Your task to perform on an android device: open app "Google Play Games" (install if not already installed) Image 0: 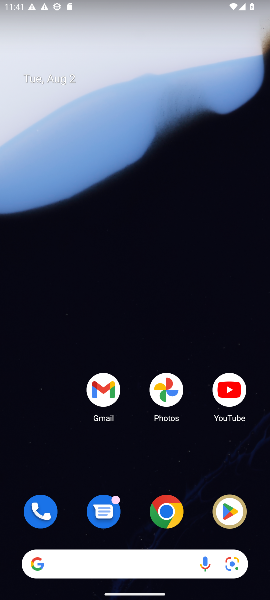
Step 0: click (229, 499)
Your task to perform on an android device: open app "Google Play Games" (install if not already installed) Image 1: 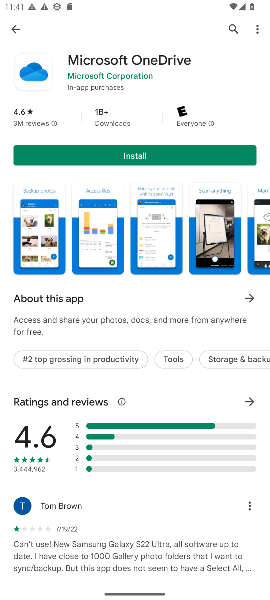
Step 1: click (225, 31)
Your task to perform on an android device: open app "Google Play Games" (install if not already installed) Image 2: 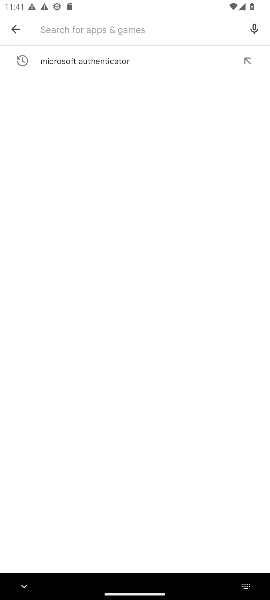
Step 2: type "google play games"
Your task to perform on an android device: open app "Google Play Games" (install if not already installed) Image 3: 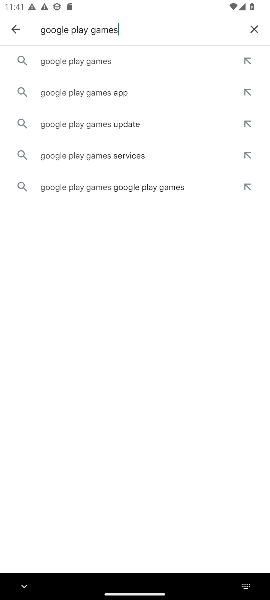
Step 3: click (61, 59)
Your task to perform on an android device: open app "Google Play Games" (install if not already installed) Image 4: 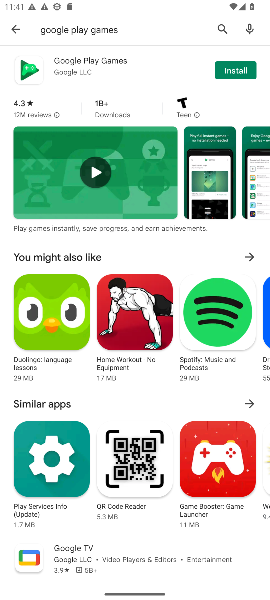
Step 4: click (77, 57)
Your task to perform on an android device: open app "Google Play Games" (install if not already installed) Image 5: 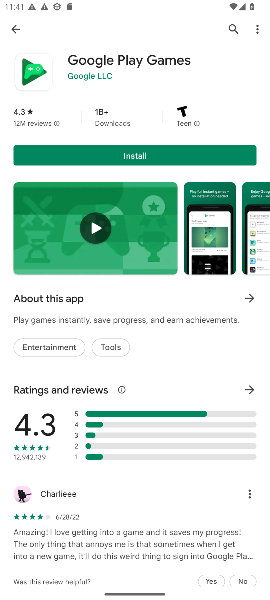
Step 5: click (164, 156)
Your task to perform on an android device: open app "Google Play Games" (install if not already installed) Image 6: 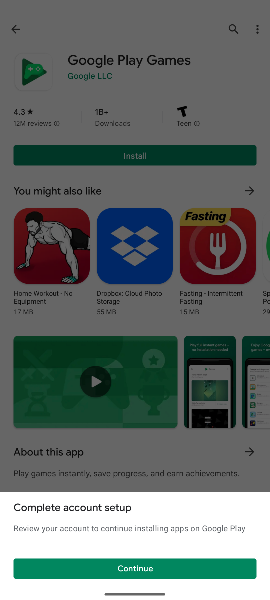
Step 6: click (164, 564)
Your task to perform on an android device: open app "Google Play Games" (install if not already installed) Image 7: 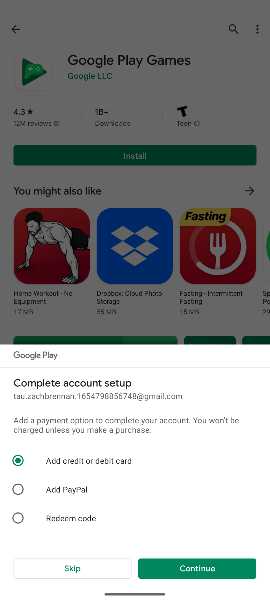
Step 7: click (79, 565)
Your task to perform on an android device: open app "Google Play Games" (install if not already installed) Image 8: 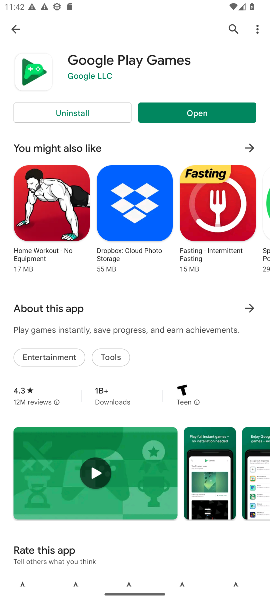
Step 8: click (183, 112)
Your task to perform on an android device: open app "Google Play Games" (install if not already installed) Image 9: 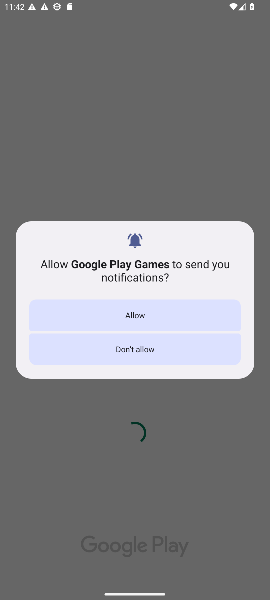
Step 9: task complete